Your task to perform on an android device: check out phone information Image 0: 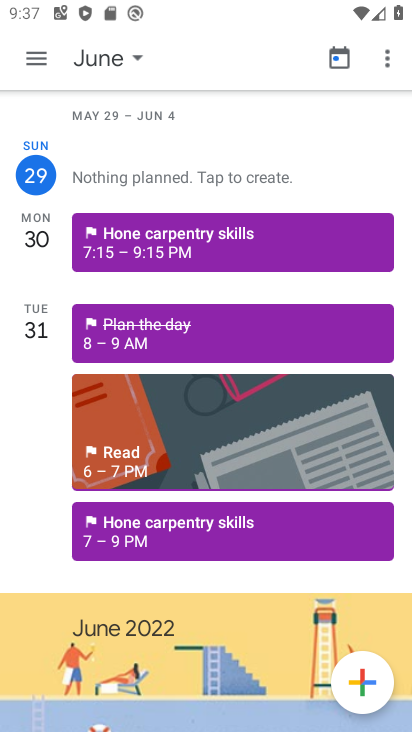
Step 0: press home button
Your task to perform on an android device: check out phone information Image 1: 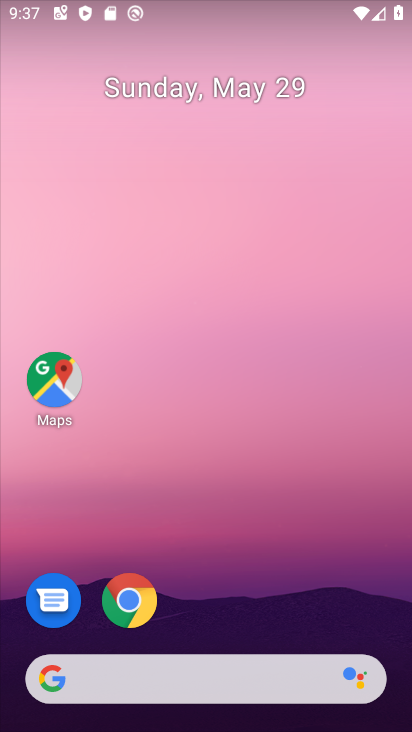
Step 1: drag from (195, 713) to (186, 90)
Your task to perform on an android device: check out phone information Image 2: 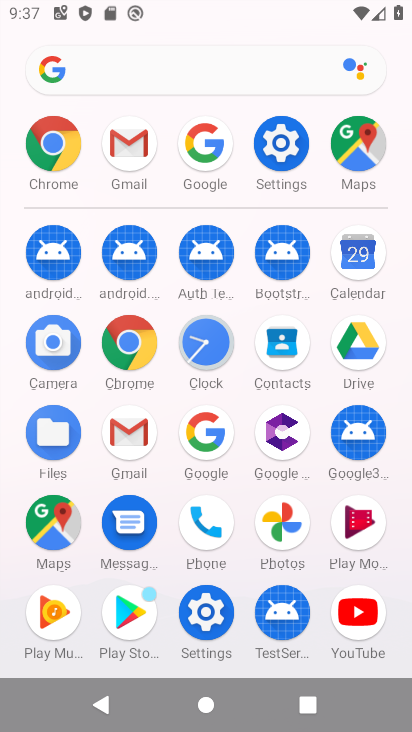
Step 2: click (274, 140)
Your task to perform on an android device: check out phone information Image 3: 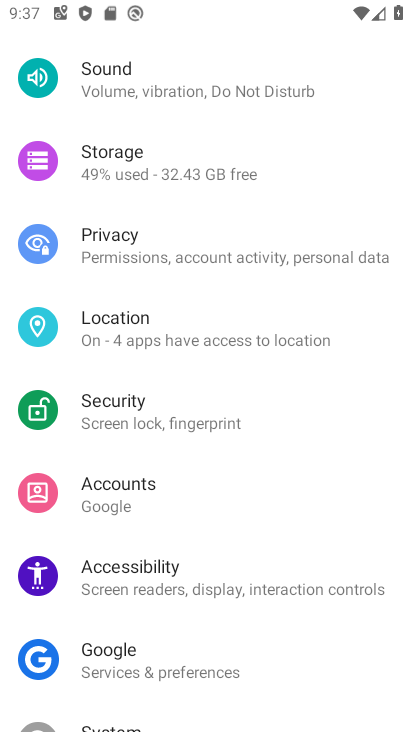
Step 3: drag from (219, 674) to (237, 211)
Your task to perform on an android device: check out phone information Image 4: 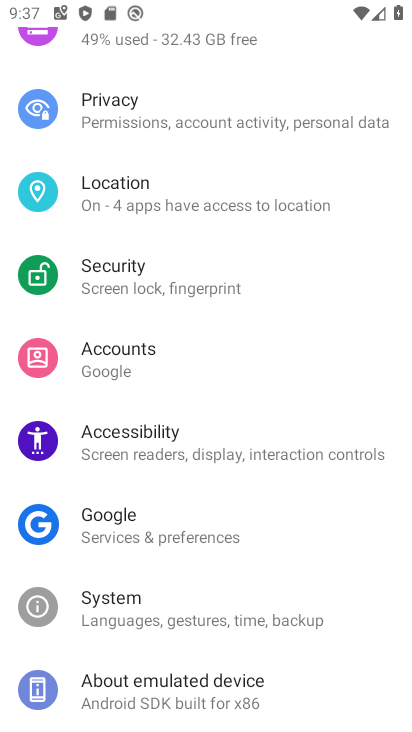
Step 4: click (225, 697)
Your task to perform on an android device: check out phone information Image 5: 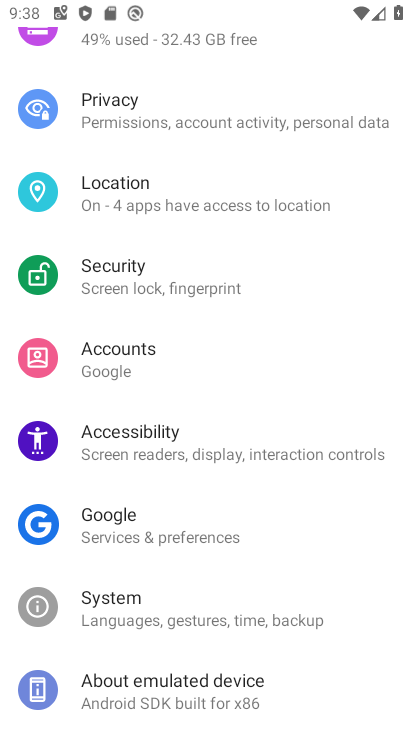
Step 5: click (180, 699)
Your task to perform on an android device: check out phone information Image 6: 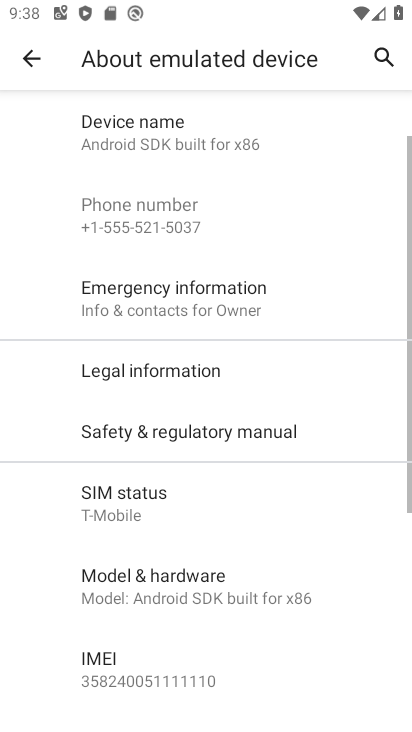
Step 6: task complete